Your task to perform on an android device: open app "DuckDuckGo Privacy Browser" Image 0: 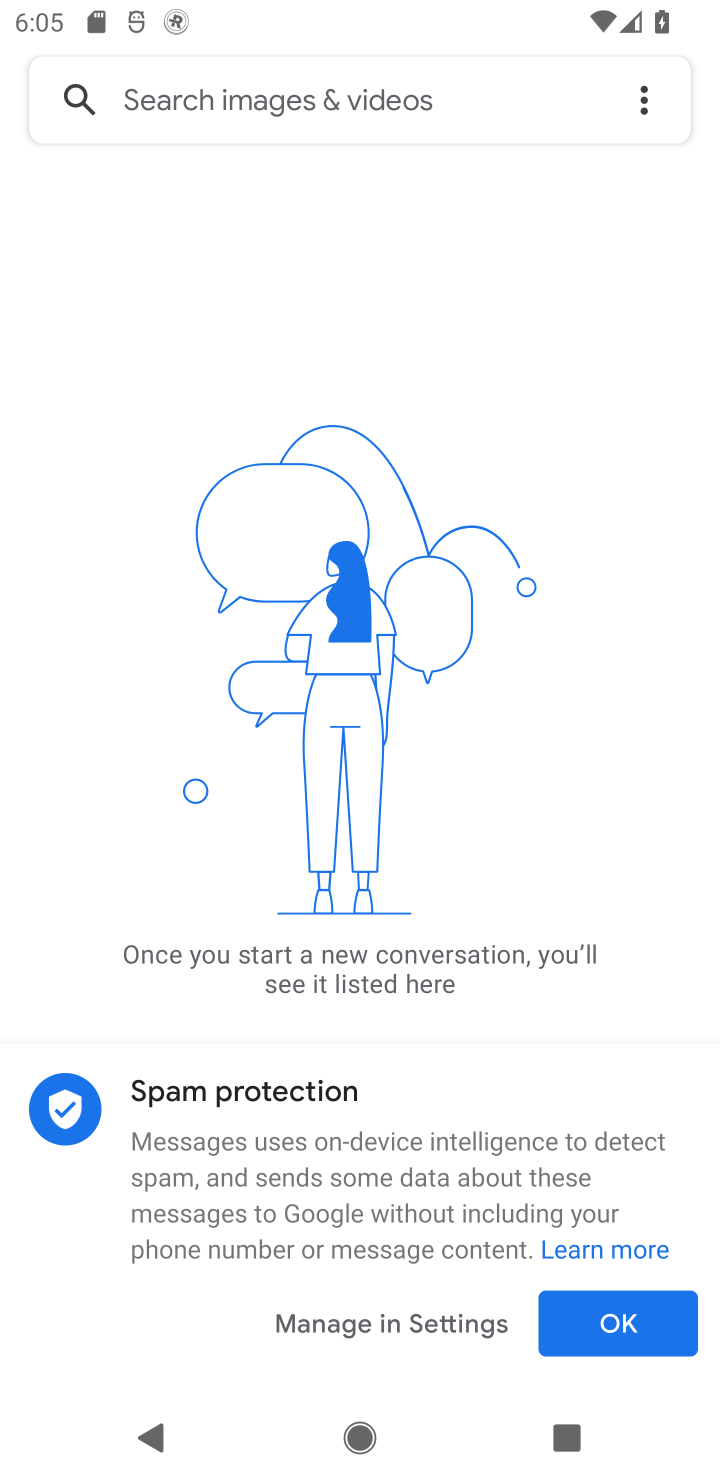
Step 0: press home button
Your task to perform on an android device: open app "DuckDuckGo Privacy Browser" Image 1: 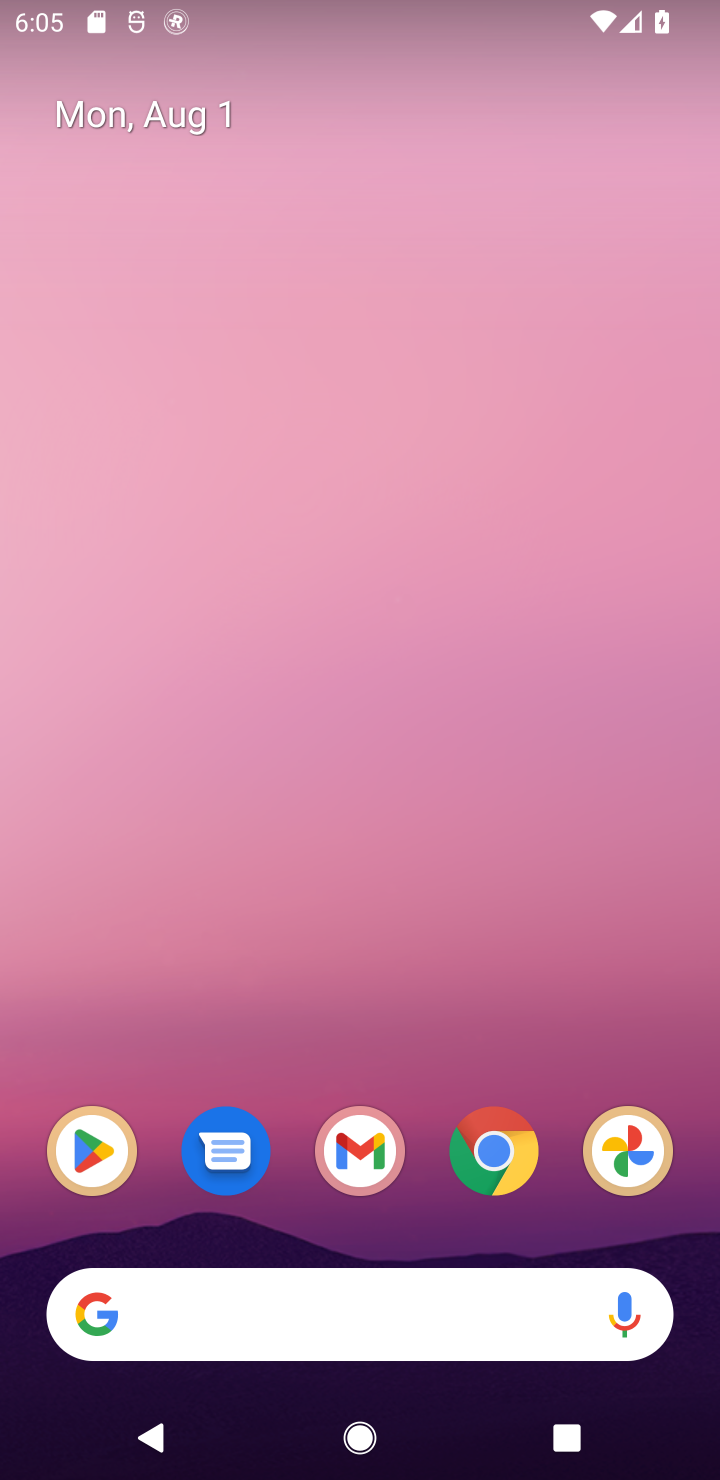
Step 1: click (60, 1164)
Your task to perform on an android device: open app "DuckDuckGo Privacy Browser" Image 2: 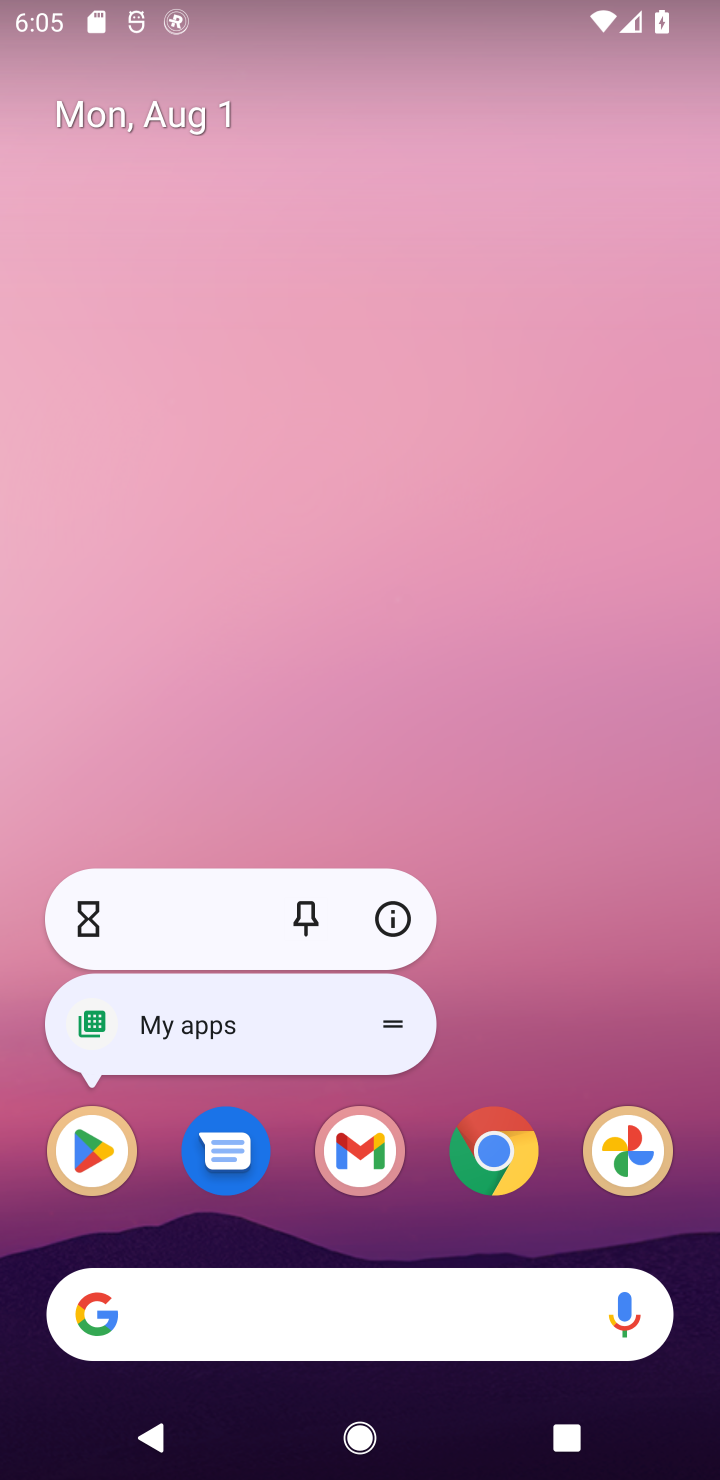
Step 2: click (94, 1153)
Your task to perform on an android device: open app "DuckDuckGo Privacy Browser" Image 3: 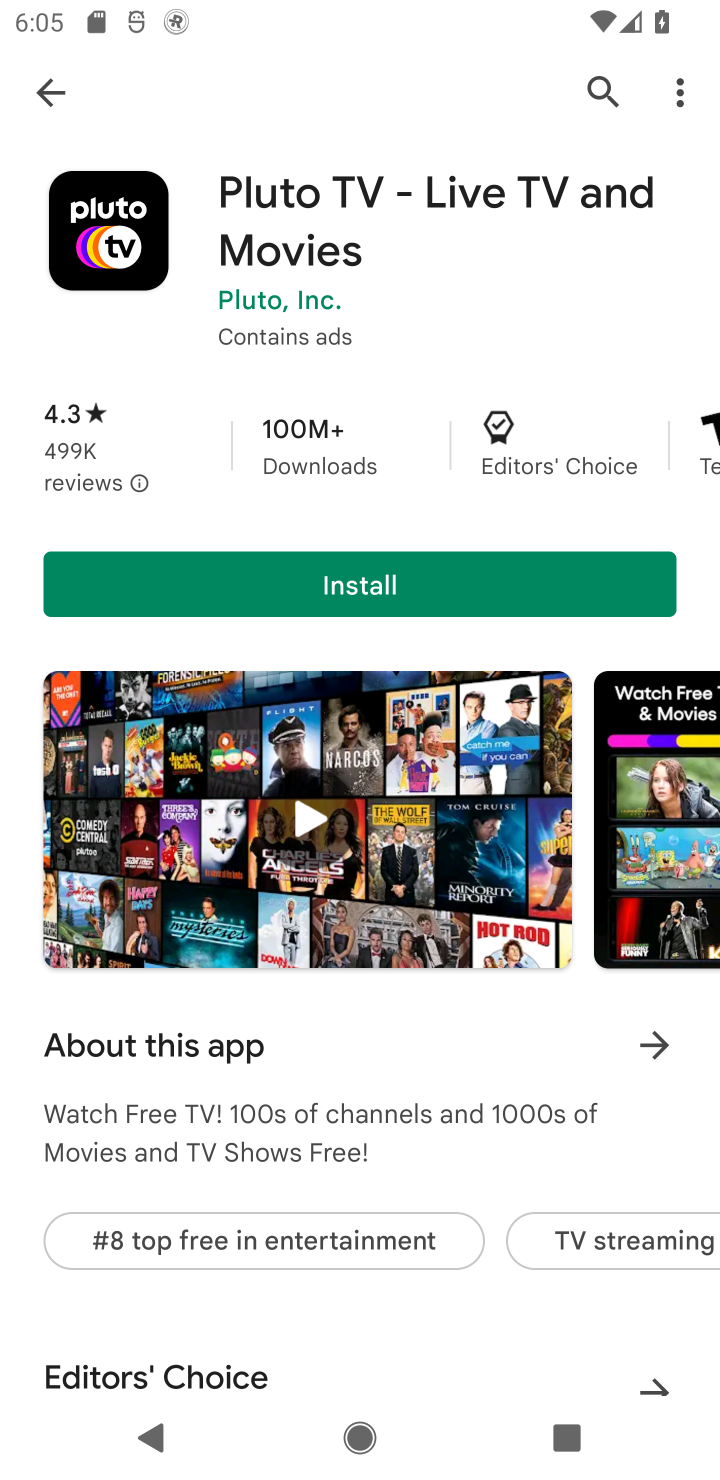
Step 3: click (609, 98)
Your task to perform on an android device: open app "DuckDuckGo Privacy Browser" Image 4: 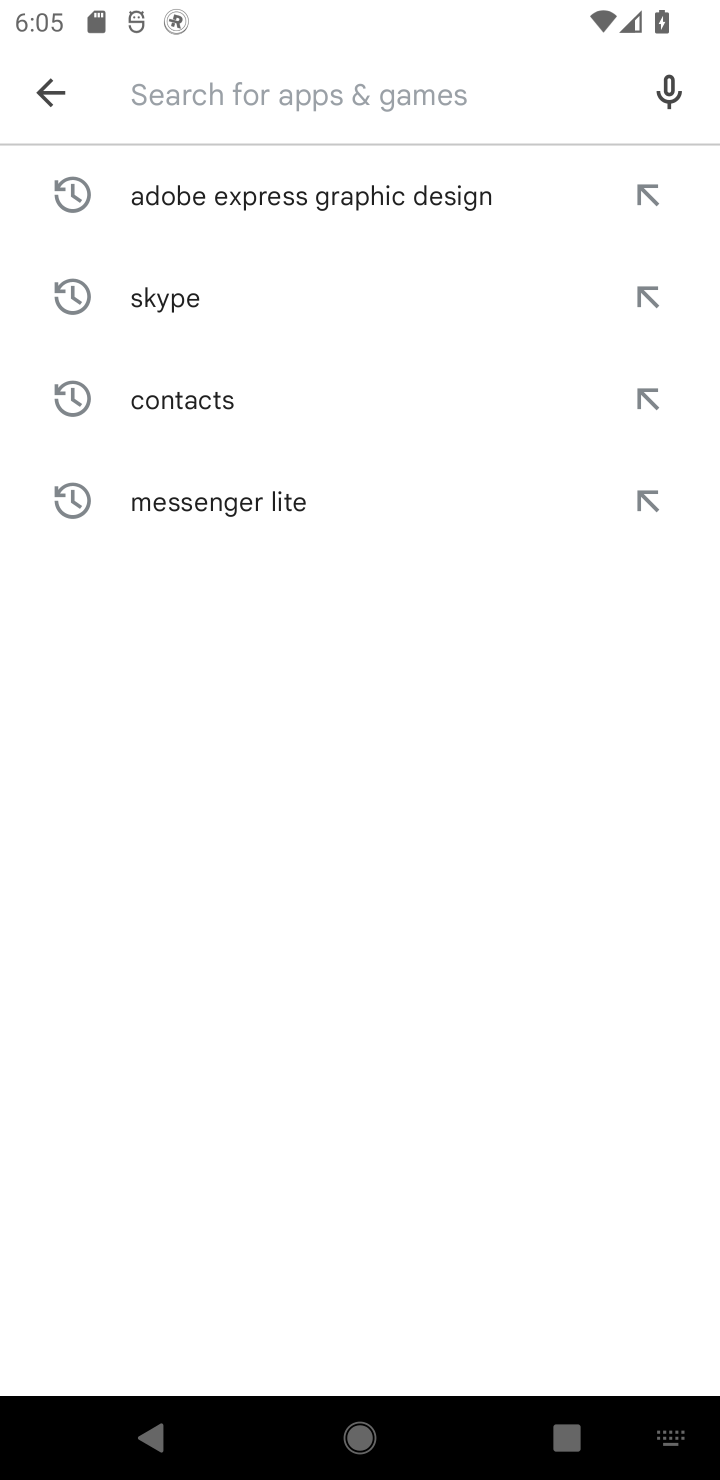
Step 4: type "DuckDuckGo Privacy Browser"
Your task to perform on an android device: open app "DuckDuckGo Privacy Browser" Image 5: 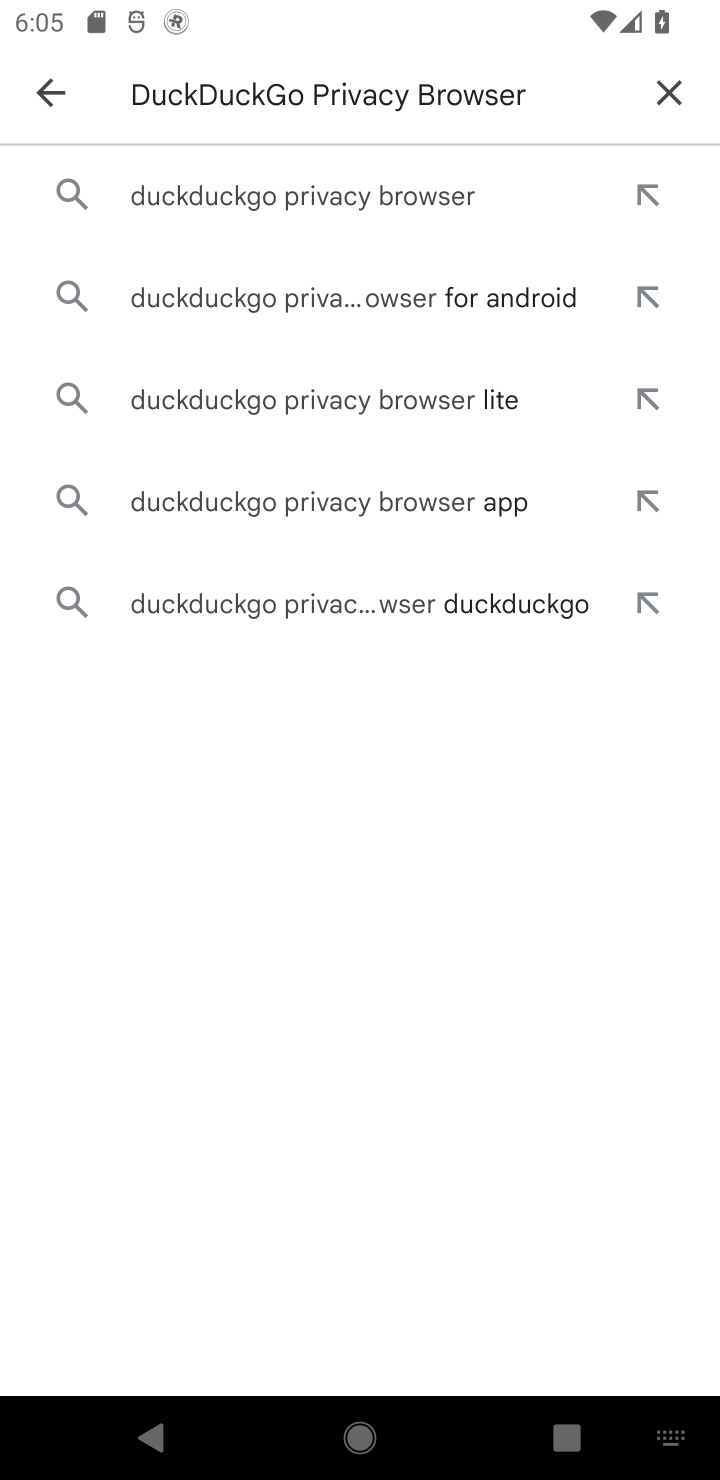
Step 5: click (280, 208)
Your task to perform on an android device: open app "DuckDuckGo Privacy Browser" Image 6: 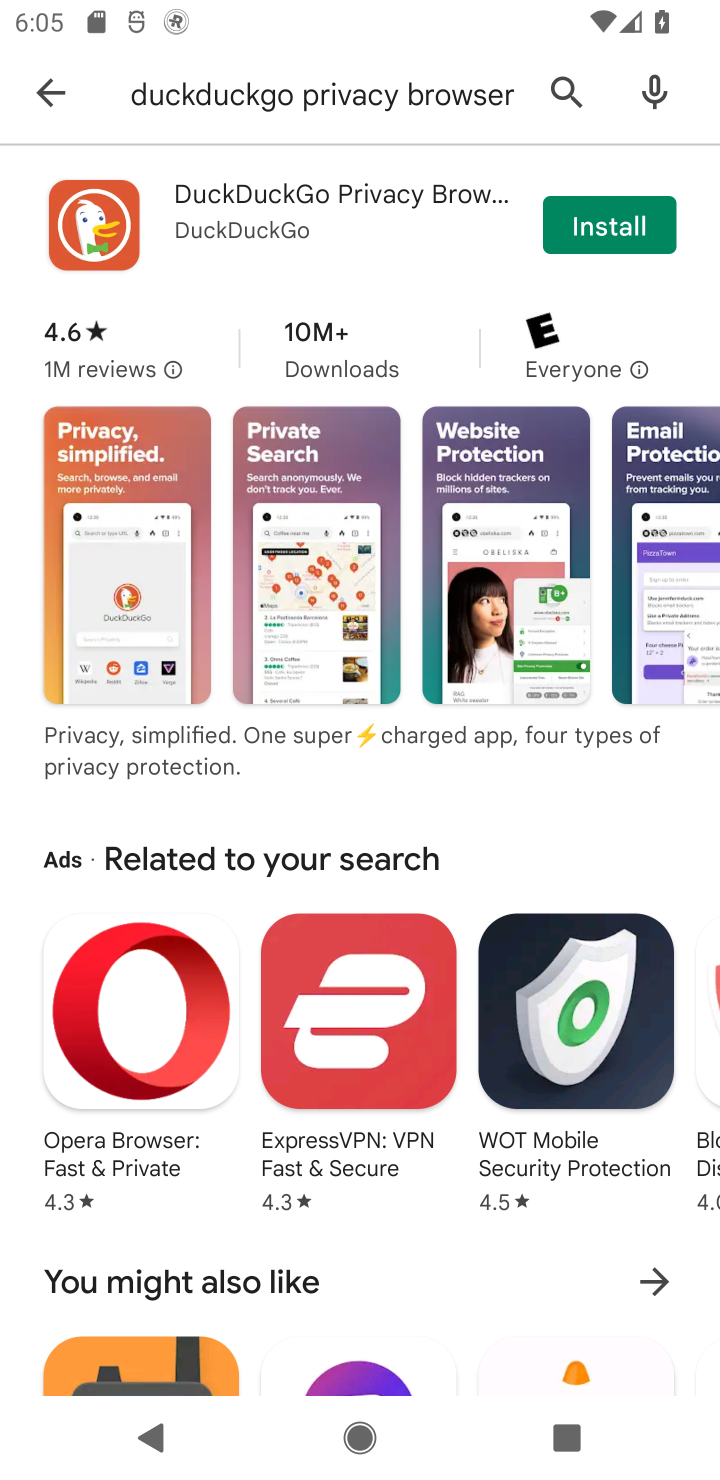
Step 6: task complete